Your task to perform on an android device: check android version Image 0: 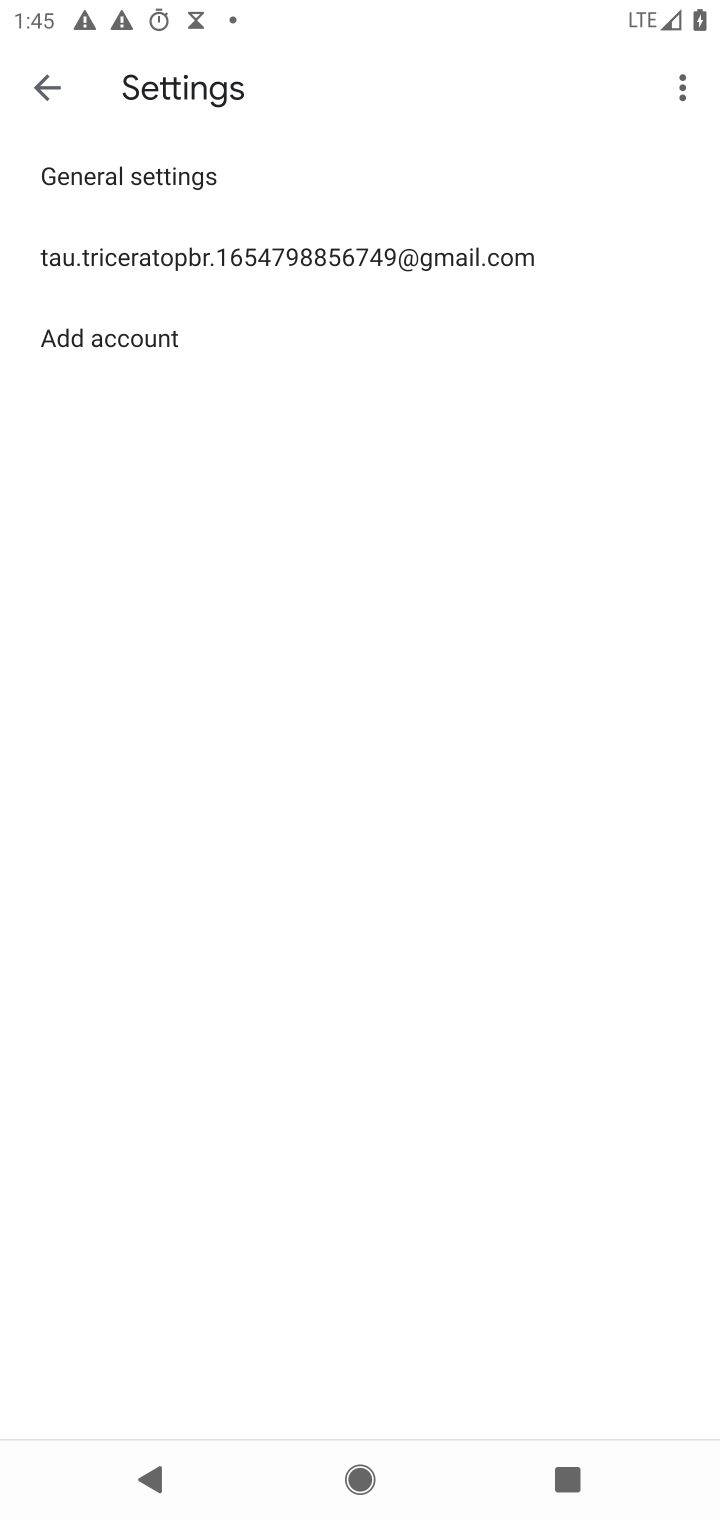
Step 0: press home button
Your task to perform on an android device: check android version Image 1: 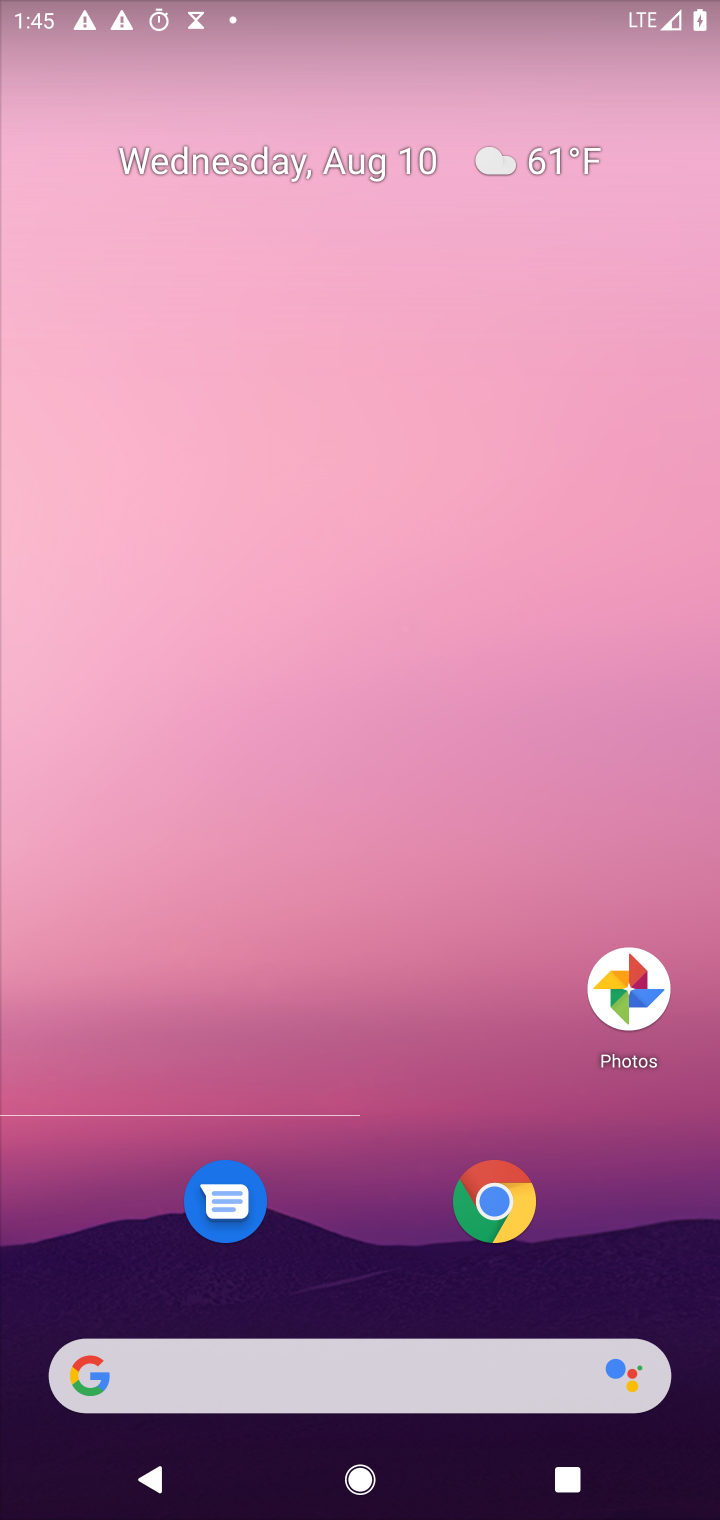
Step 1: drag from (357, 1288) to (291, 371)
Your task to perform on an android device: check android version Image 2: 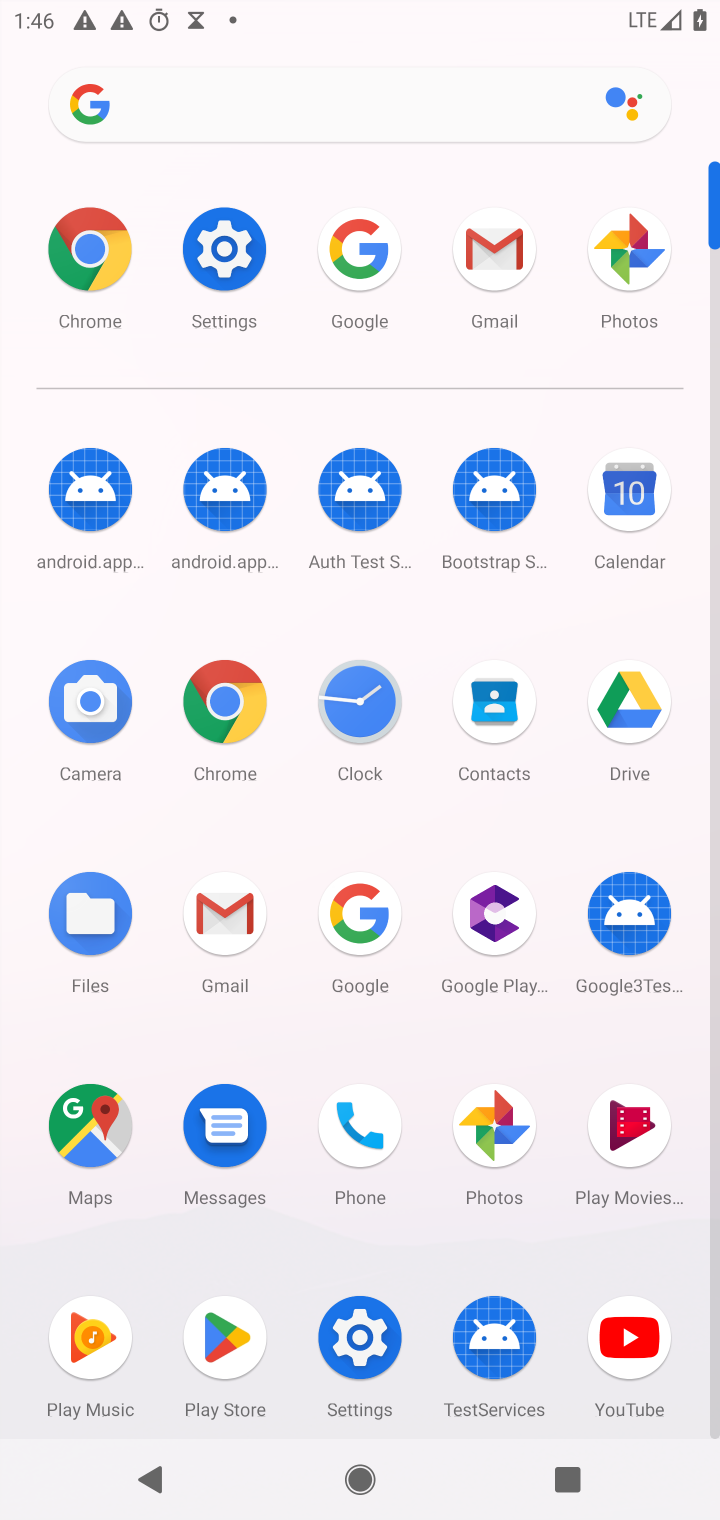
Step 2: click (222, 257)
Your task to perform on an android device: check android version Image 3: 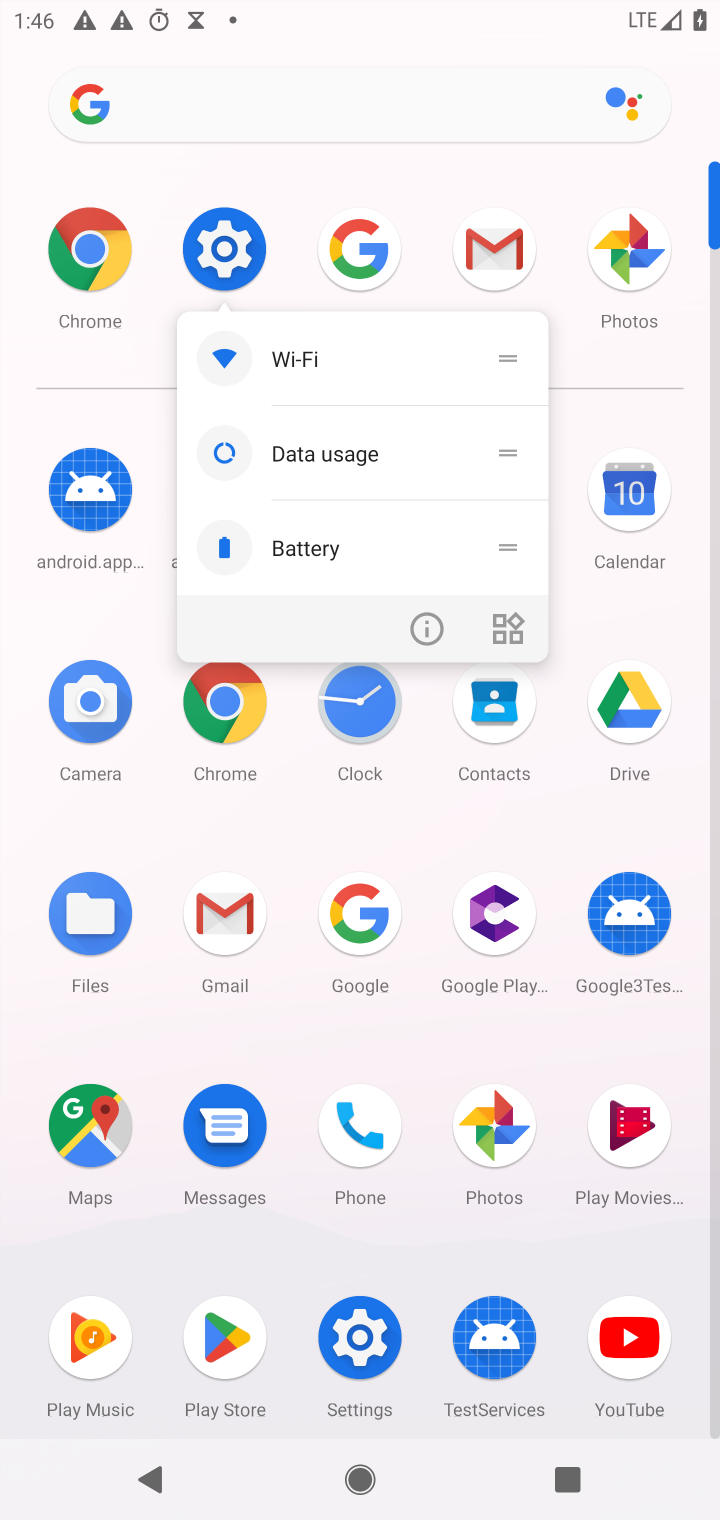
Step 3: click (222, 257)
Your task to perform on an android device: check android version Image 4: 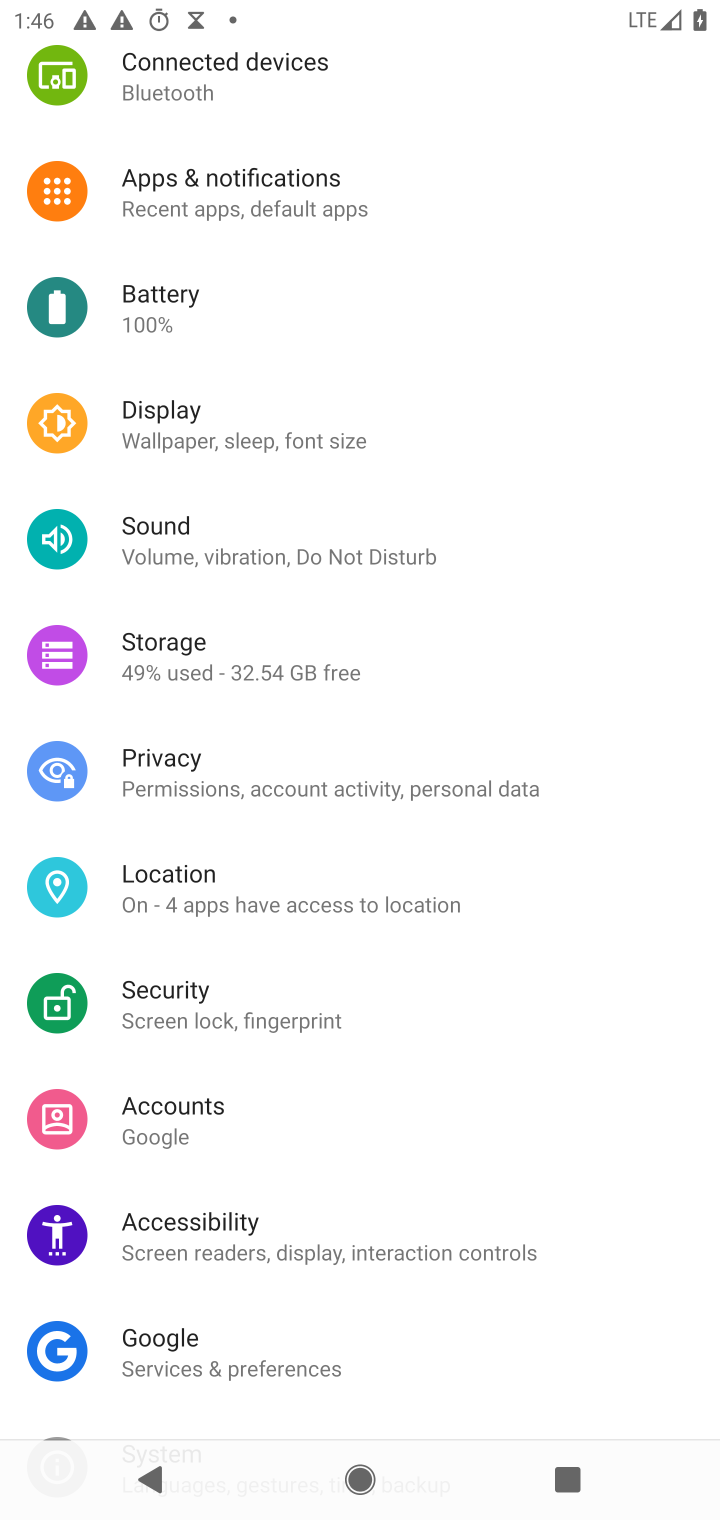
Step 4: drag from (561, 1385) to (398, 446)
Your task to perform on an android device: check android version Image 5: 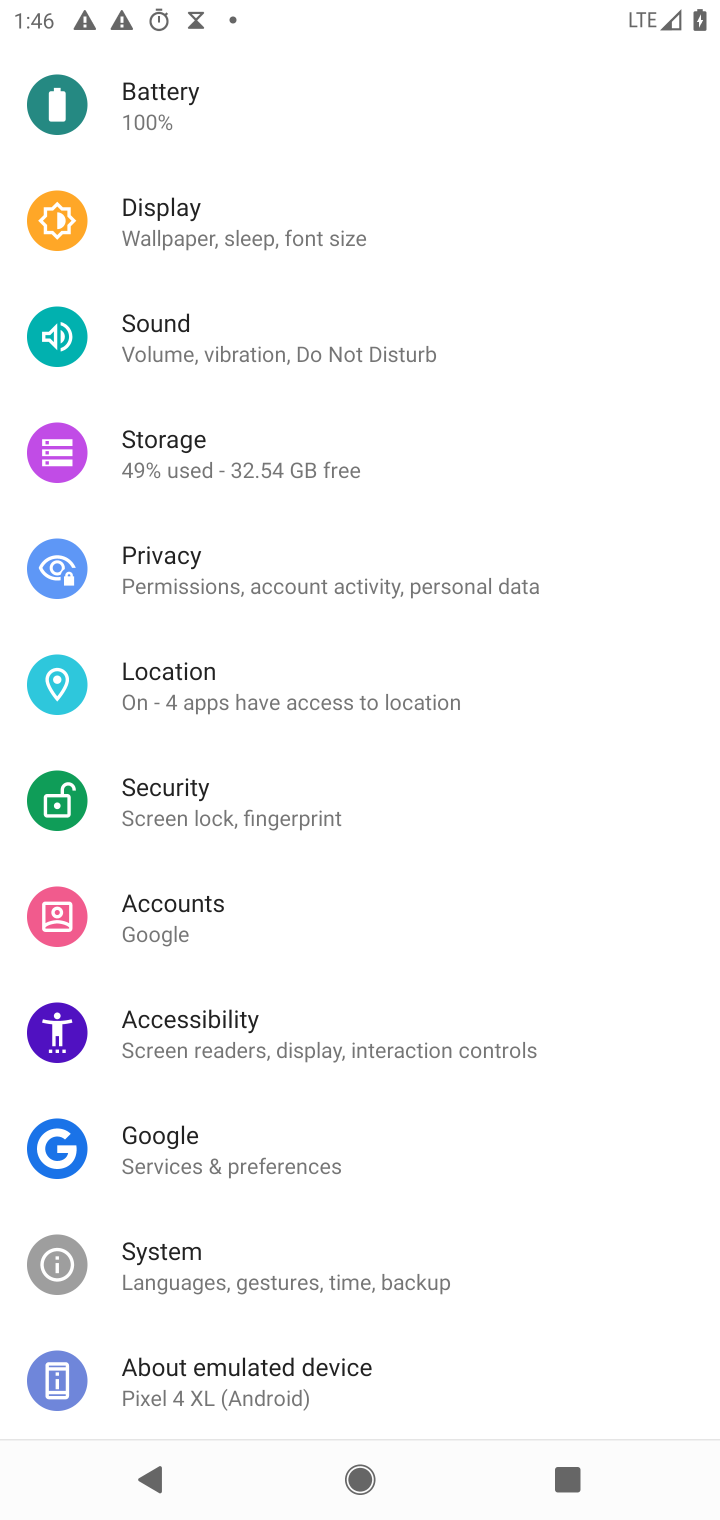
Step 5: click (258, 1390)
Your task to perform on an android device: check android version Image 6: 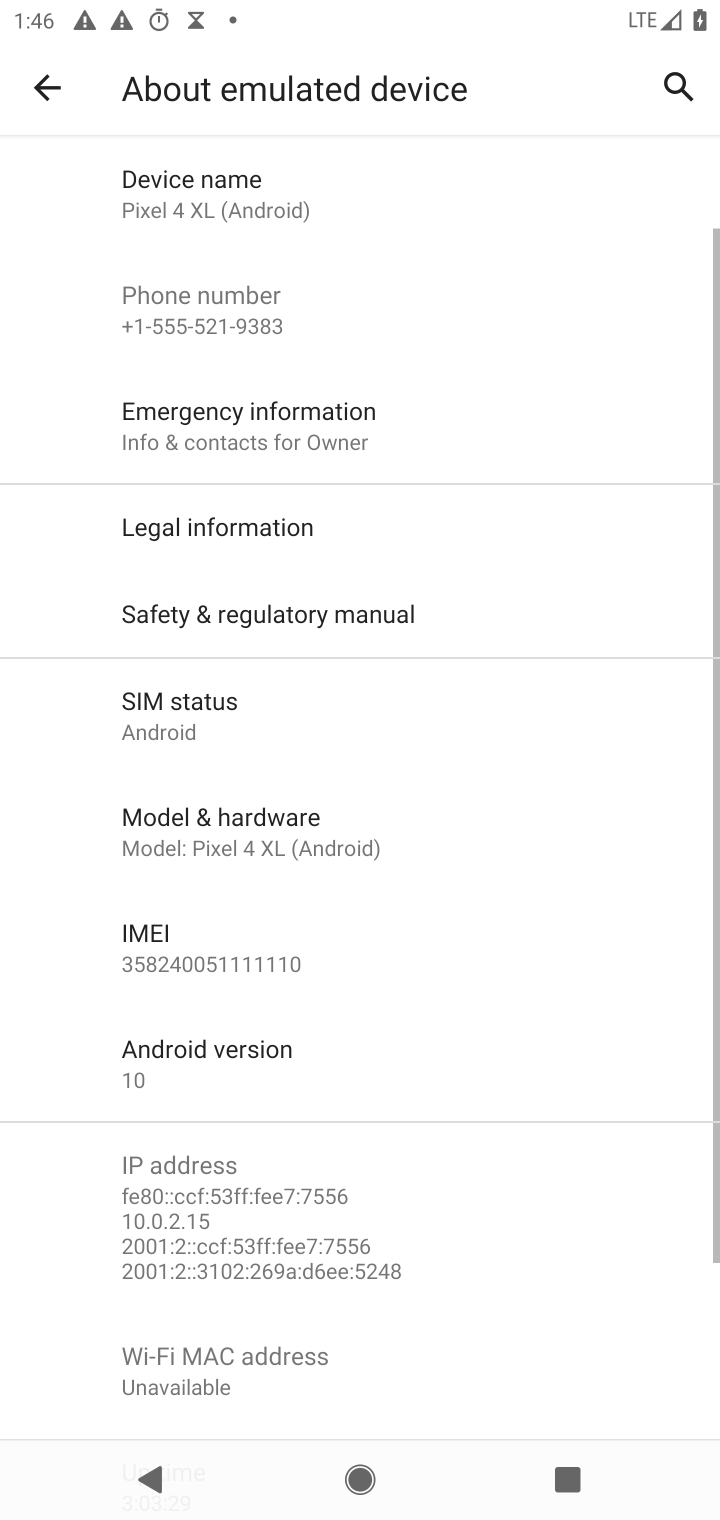
Step 6: task complete